Your task to perform on an android device: open the mobile data screen to see how much data has been used Image 0: 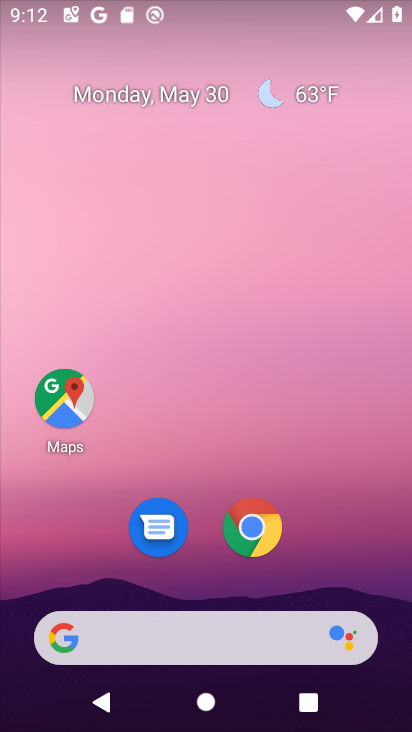
Step 0: drag from (310, 477) to (277, 242)
Your task to perform on an android device: open the mobile data screen to see how much data has been used Image 1: 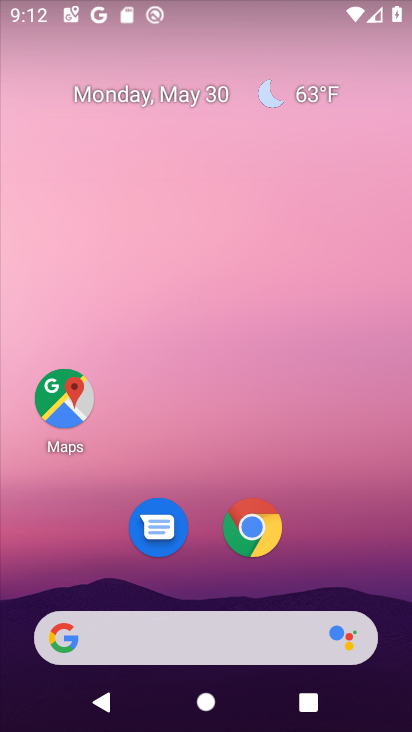
Step 1: drag from (315, 585) to (311, 161)
Your task to perform on an android device: open the mobile data screen to see how much data has been used Image 2: 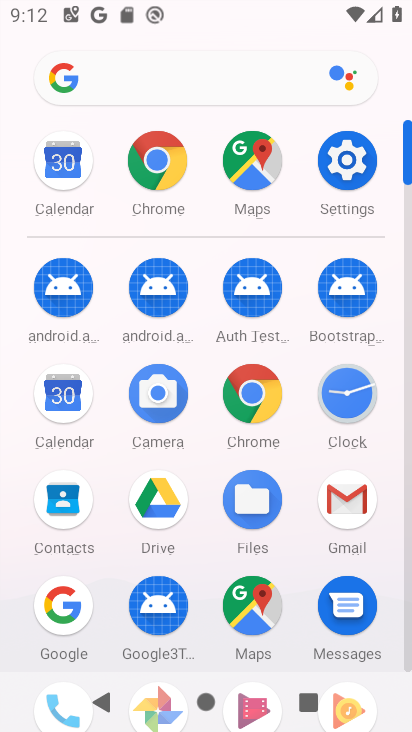
Step 2: click (356, 161)
Your task to perform on an android device: open the mobile data screen to see how much data has been used Image 3: 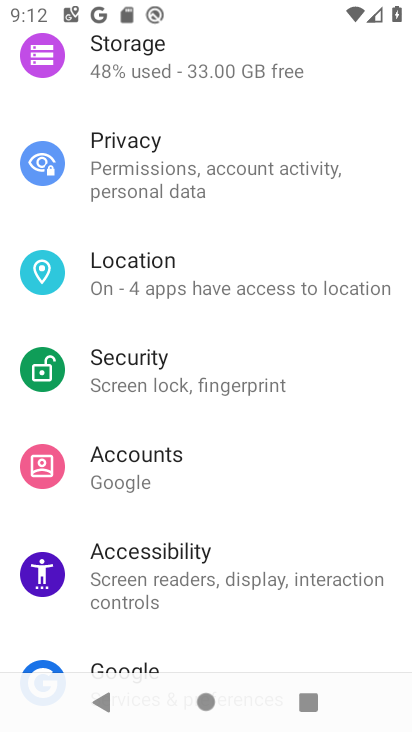
Step 3: drag from (184, 172) to (215, 451)
Your task to perform on an android device: open the mobile data screen to see how much data has been used Image 4: 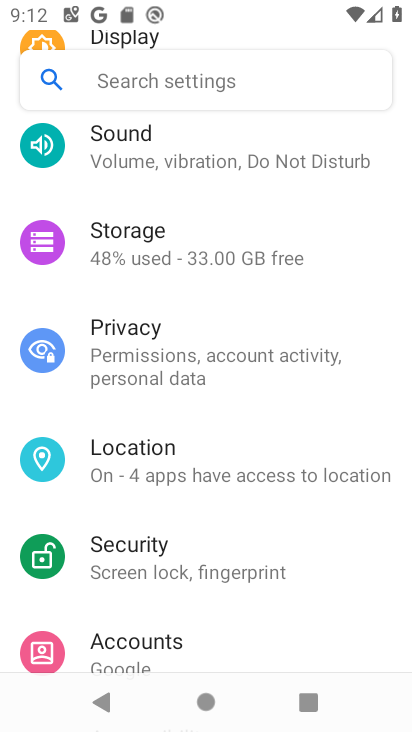
Step 4: drag from (213, 257) to (199, 598)
Your task to perform on an android device: open the mobile data screen to see how much data has been used Image 5: 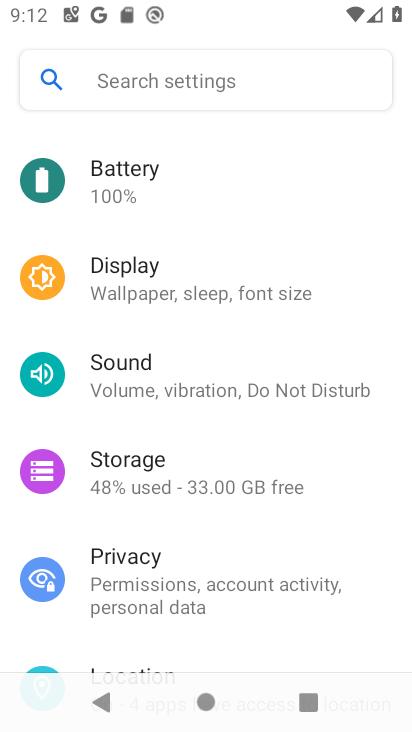
Step 5: drag from (167, 208) to (167, 584)
Your task to perform on an android device: open the mobile data screen to see how much data has been used Image 6: 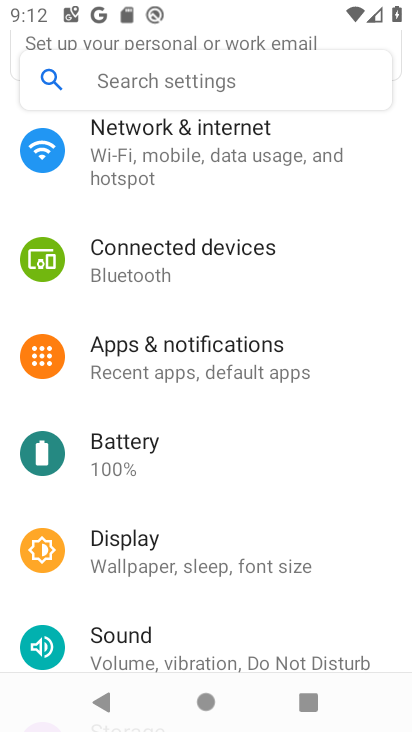
Step 6: click (209, 149)
Your task to perform on an android device: open the mobile data screen to see how much data has been used Image 7: 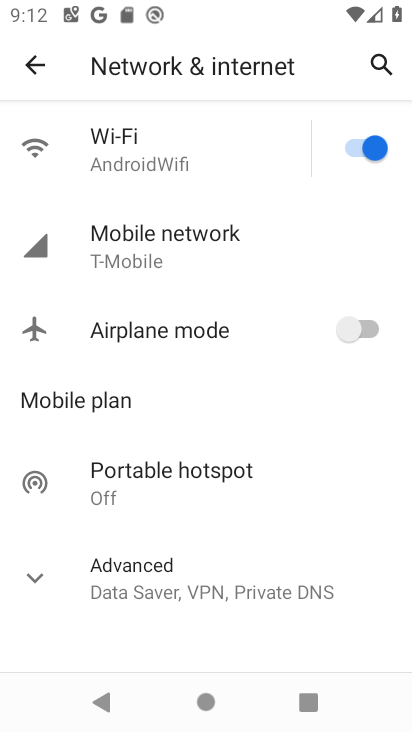
Step 7: click (149, 239)
Your task to perform on an android device: open the mobile data screen to see how much data has been used Image 8: 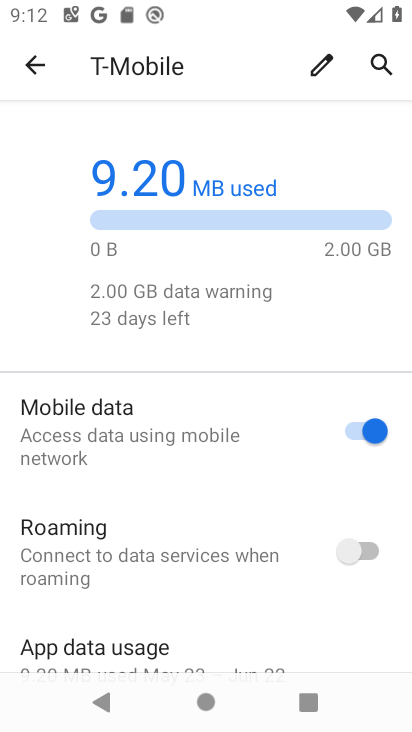
Step 8: task complete